Your task to perform on an android device: delete location history Image 0: 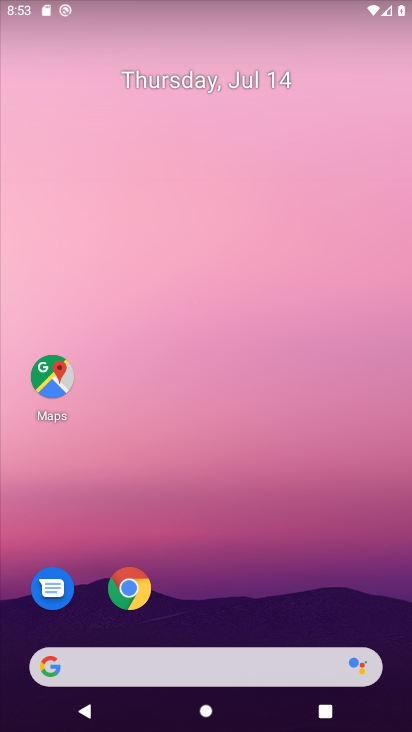
Step 0: drag from (222, 597) to (226, 37)
Your task to perform on an android device: delete location history Image 1: 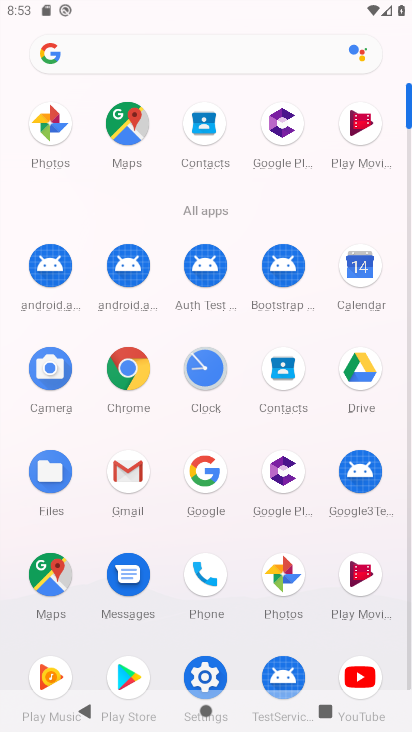
Step 1: click (46, 572)
Your task to perform on an android device: delete location history Image 2: 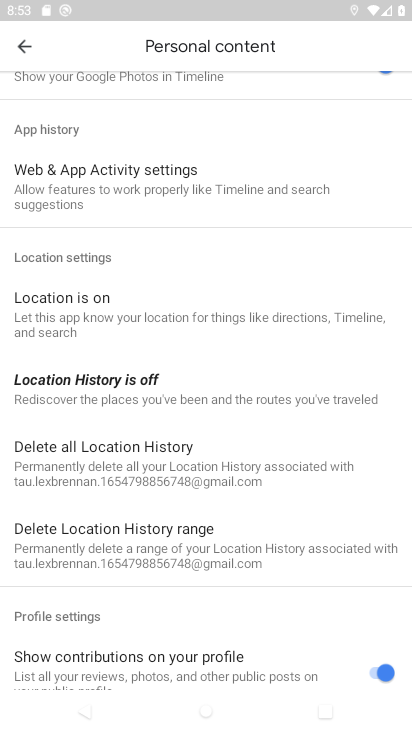
Step 2: click (130, 459)
Your task to perform on an android device: delete location history Image 3: 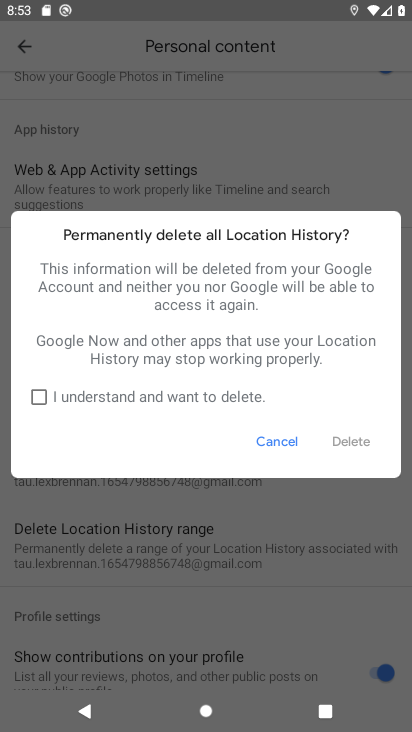
Step 3: click (44, 385)
Your task to perform on an android device: delete location history Image 4: 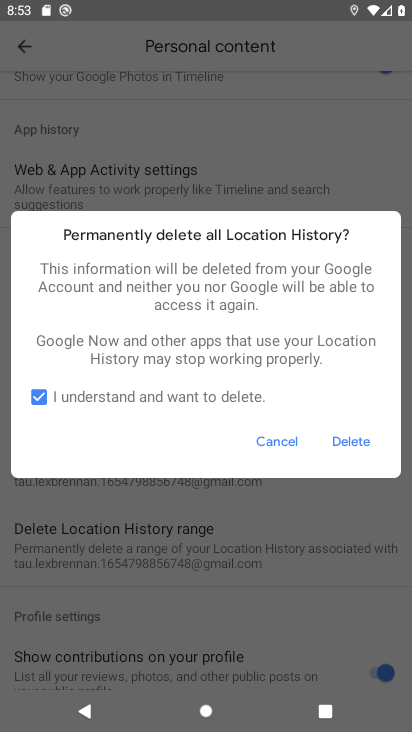
Step 4: click (361, 438)
Your task to perform on an android device: delete location history Image 5: 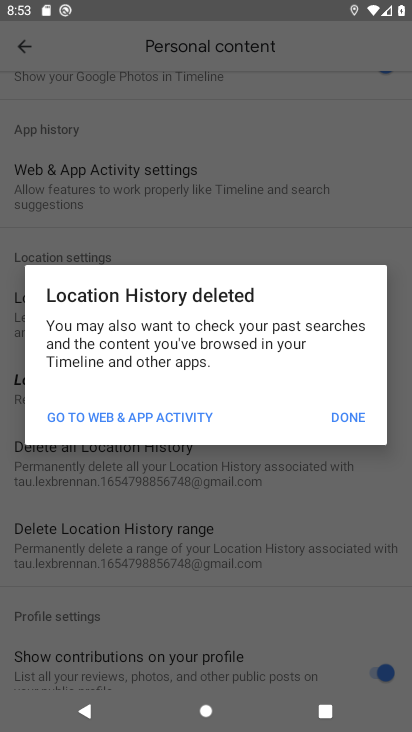
Step 5: click (336, 407)
Your task to perform on an android device: delete location history Image 6: 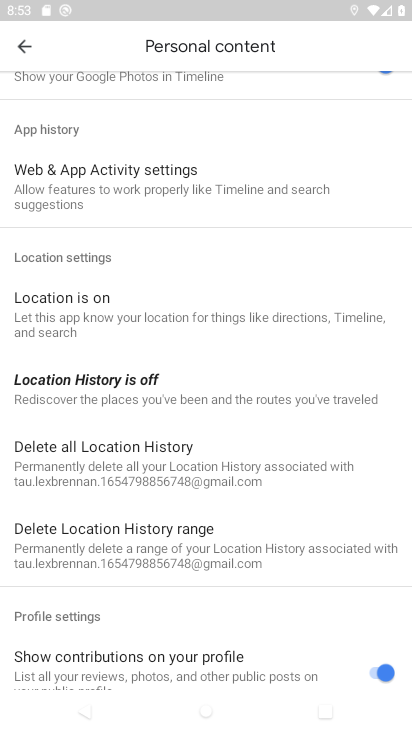
Step 6: task complete